Your task to perform on an android device: turn pop-ups on in chrome Image 0: 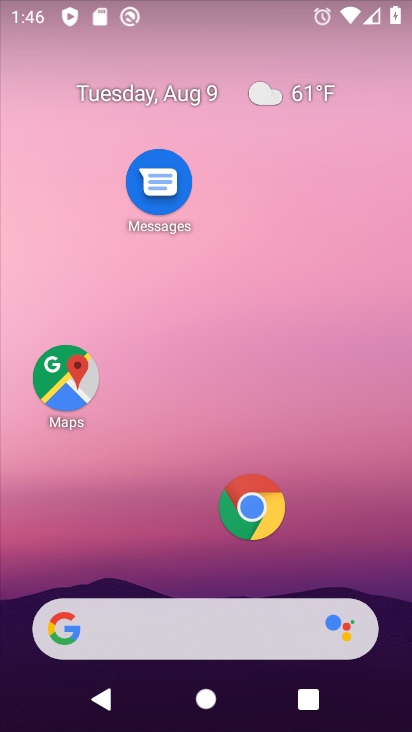
Step 0: click (264, 506)
Your task to perform on an android device: turn pop-ups on in chrome Image 1: 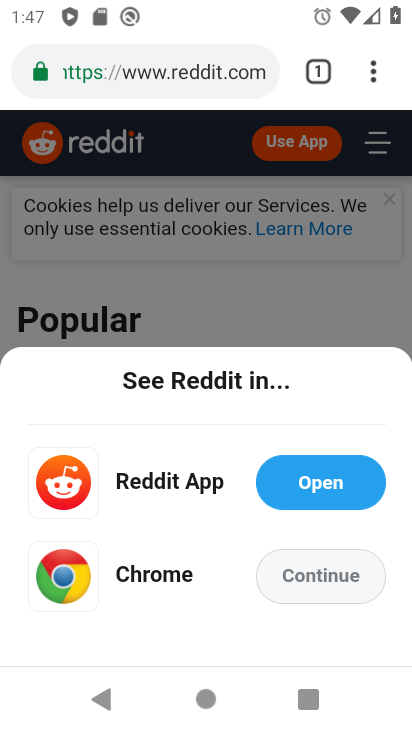
Step 1: drag from (370, 71) to (117, 497)
Your task to perform on an android device: turn pop-ups on in chrome Image 2: 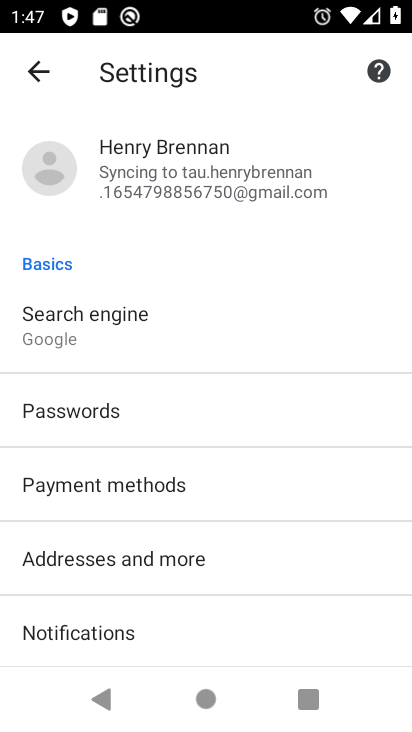
Step 2: drag from (164, 618) to (239, 197)
Your task to perform on an android device: turn pop-ups on in chrome Image 3: 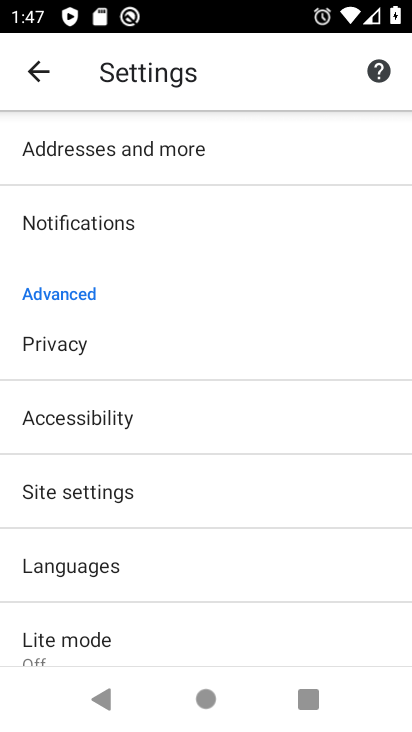
Step 3: click (69, 483)
Your task to perform on an android device: turn pop-ups on in chrome Image 4: 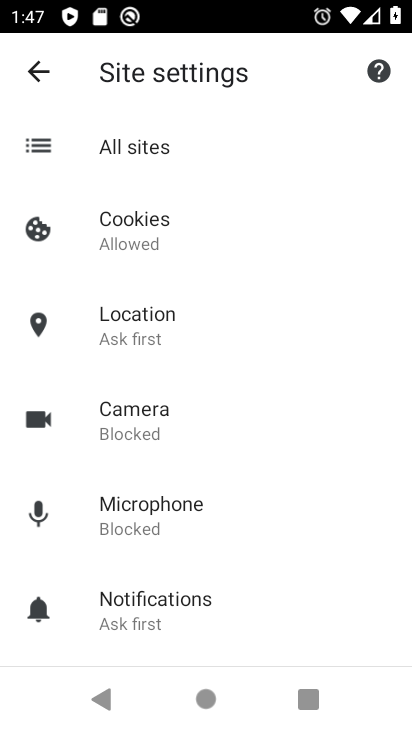
Step 4: drag from (177, 588) to (256, 114)
Your task to perform on an android device: turn pop-ups on in chrome Image 5: 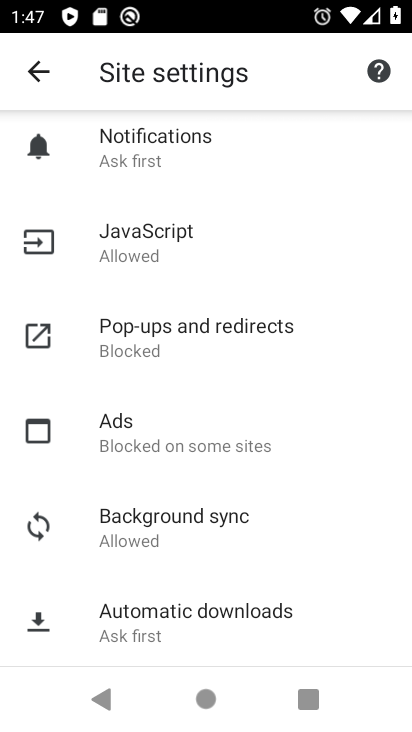
Step 5: click (171, 324)
Your task to perform on an android device: turn pop-ups on in chrome Image 6: 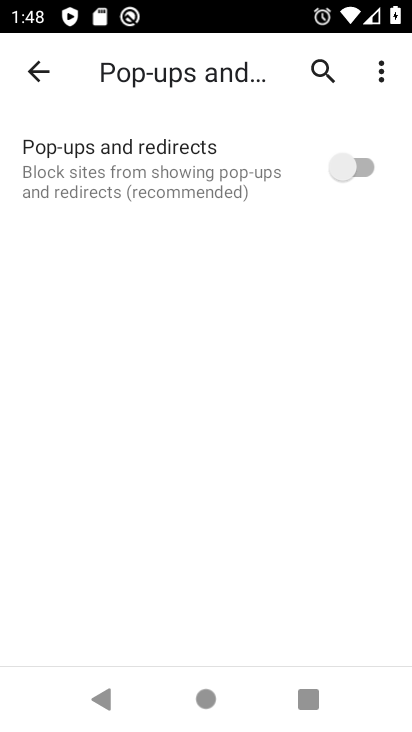
Step 6: click (364, 172)
Your task to perform on an android device: turn pop-ups on in chrome Image 7: 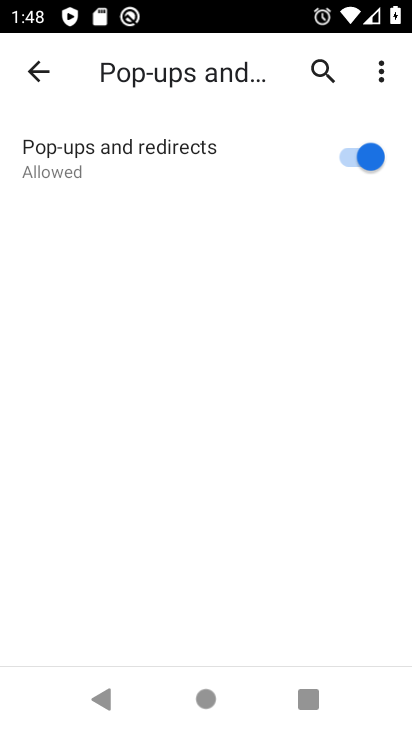
Step 7: task complete